Your task to perform on an android device: Search for the best selling books Image 0: 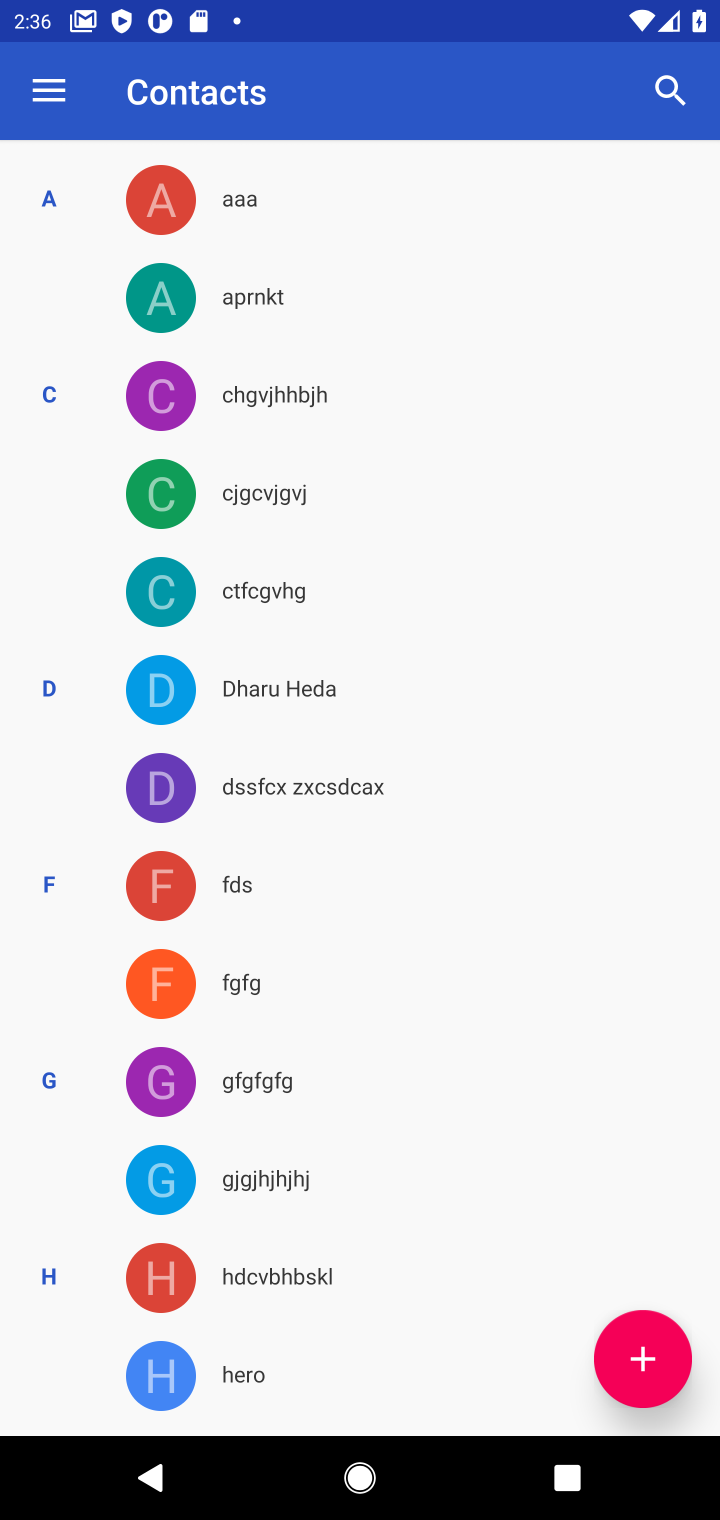
Step 0: press home button
Your task to perform on an android device: Search for the best selling books Image 1: 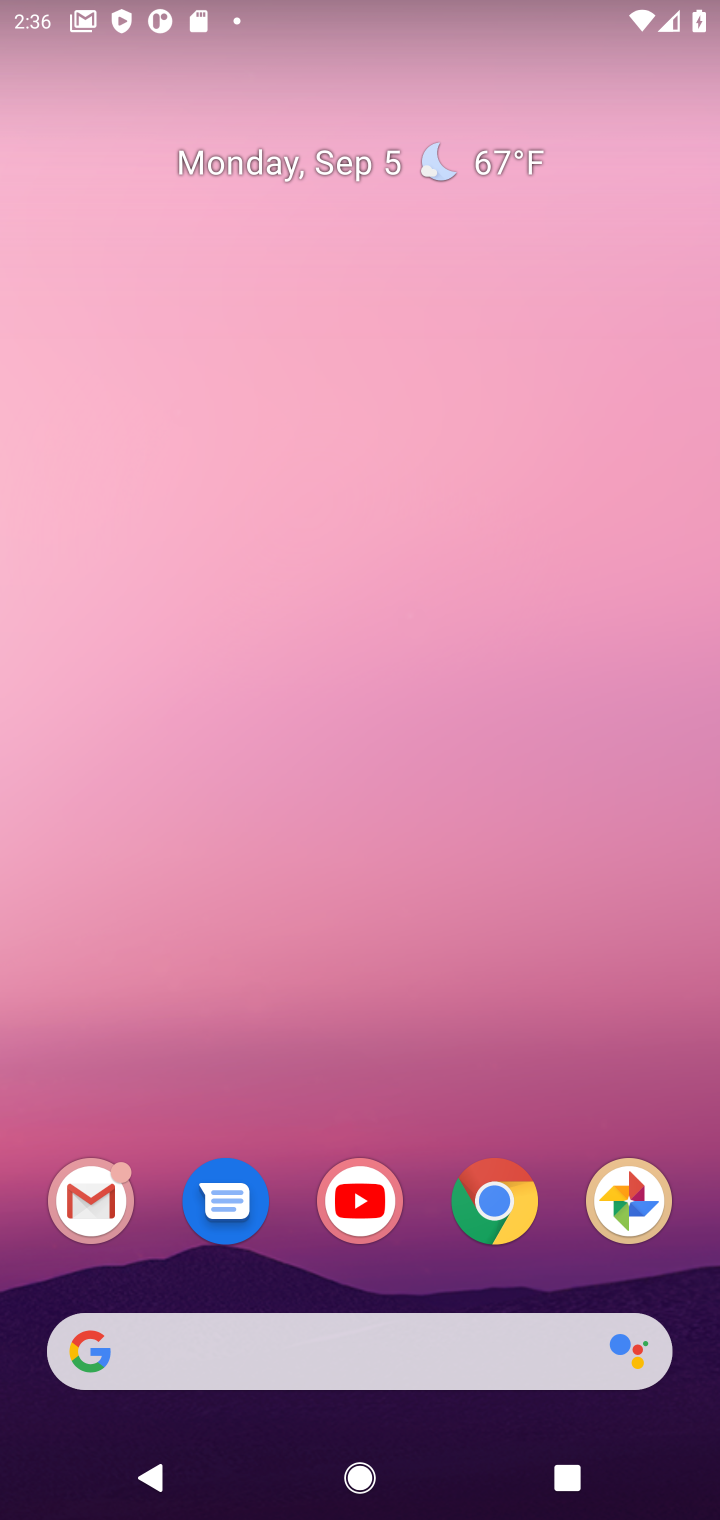
Step 1: click (489, 1220)
Your task to perform on an android device: Search for the best selling books Image 2: 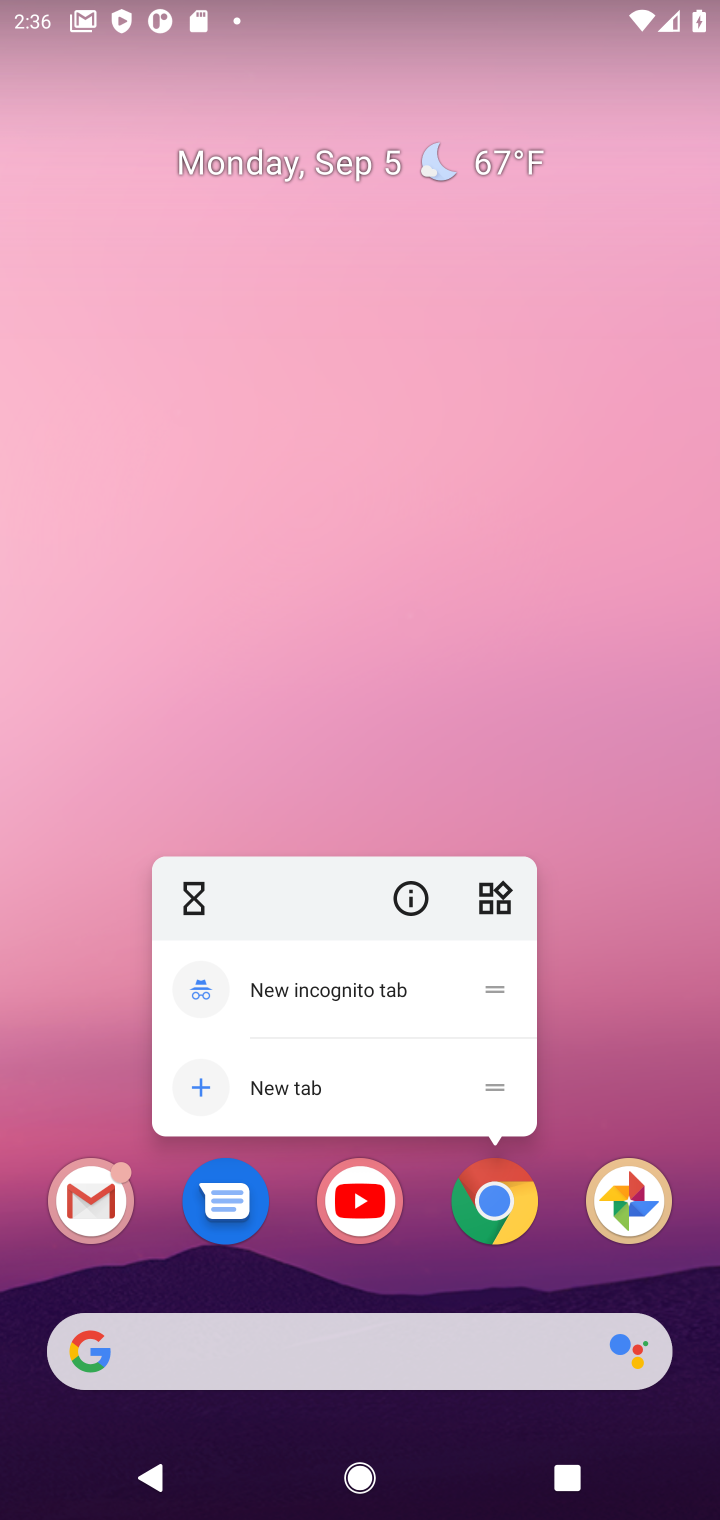
Step 2: click (504, 1201)
Your task to perform on an android device: Search for the best selling books Image 3: 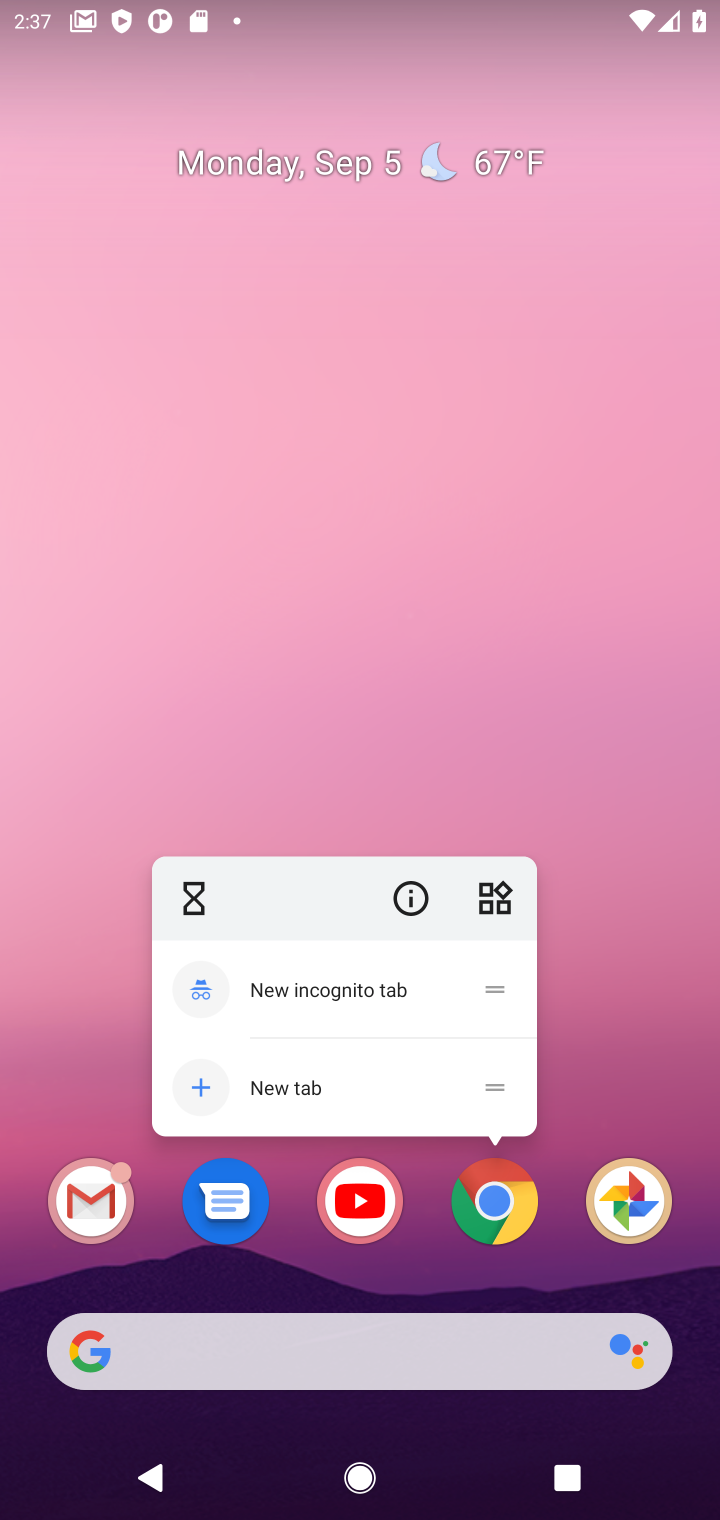
Step 3: click (504, 1203)
Your task to perform on an android device: Search for the best selling books Image 4: 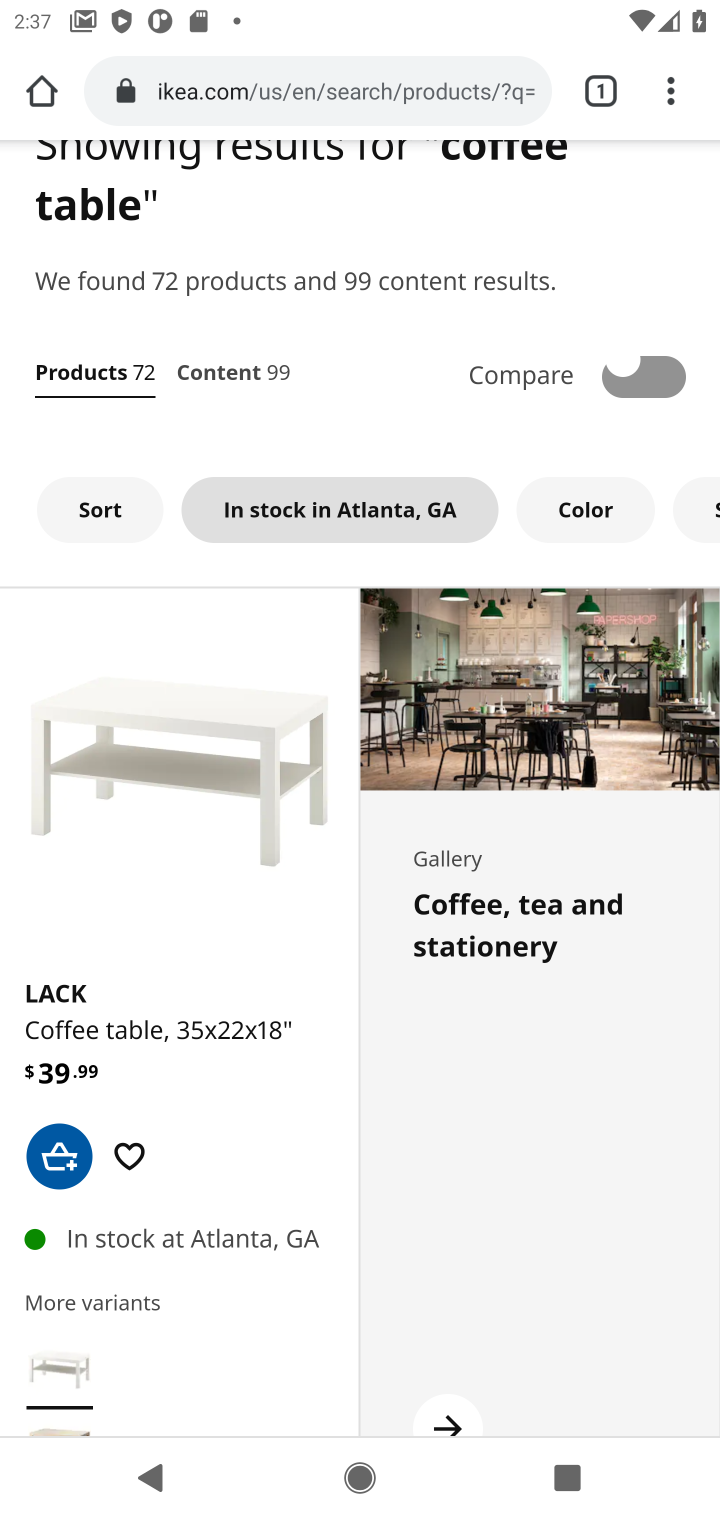
Step 4: click (371, 87)
Your task to perform on an android device: Search for the best selling books Image 5: 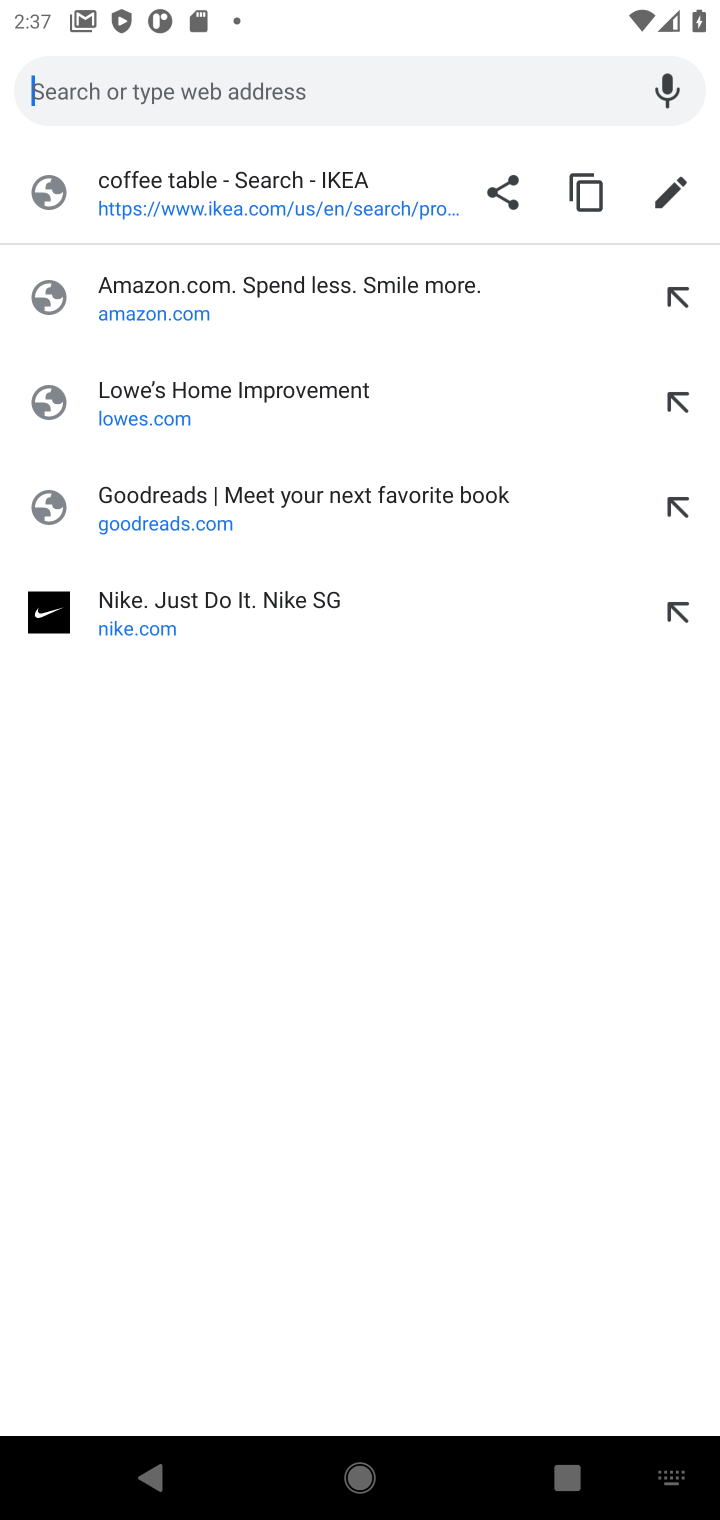
Step 5: type " best selling books"
Your task to perform on an android device: Search for the best selling books Image 6: 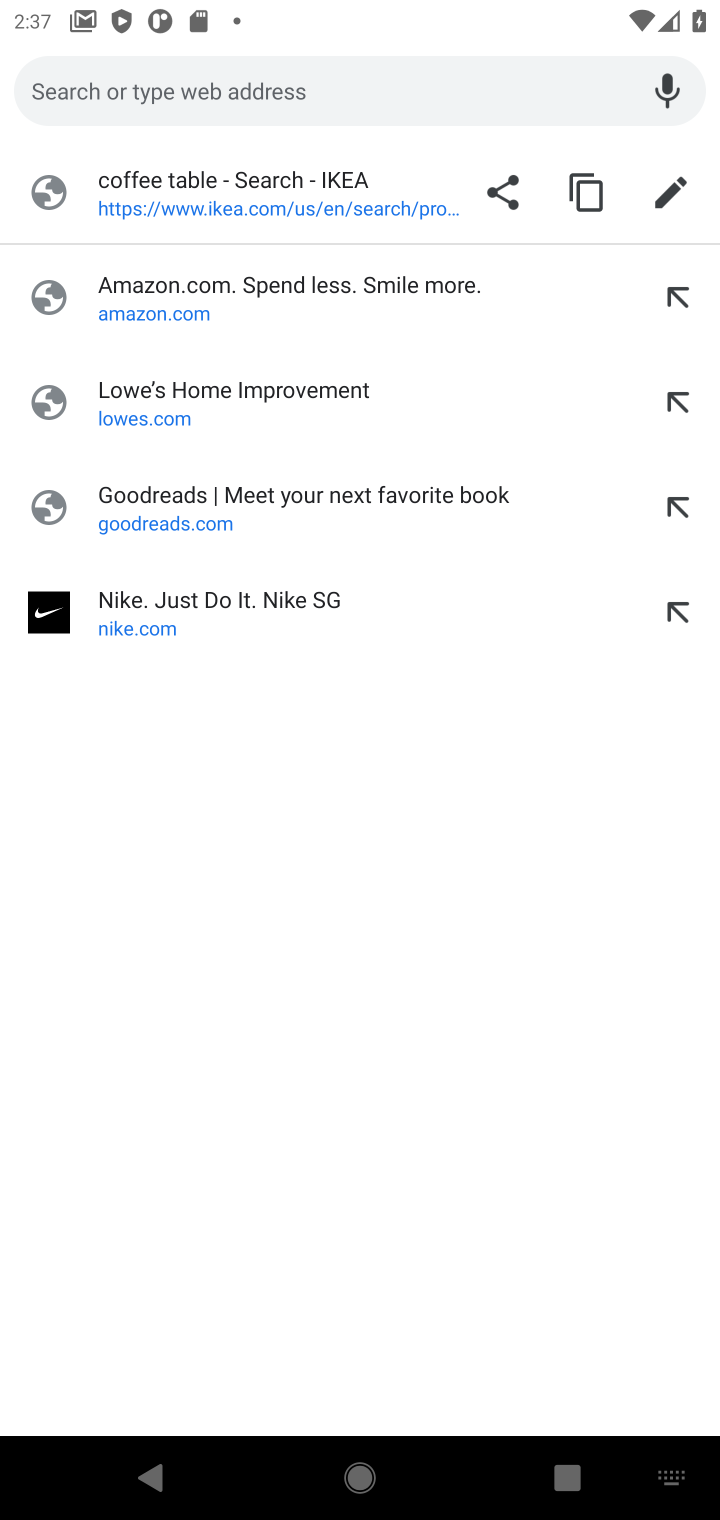
Step 6: click (201, 86)
Your task to perform on an android device: Search for the best selling books Image 7: 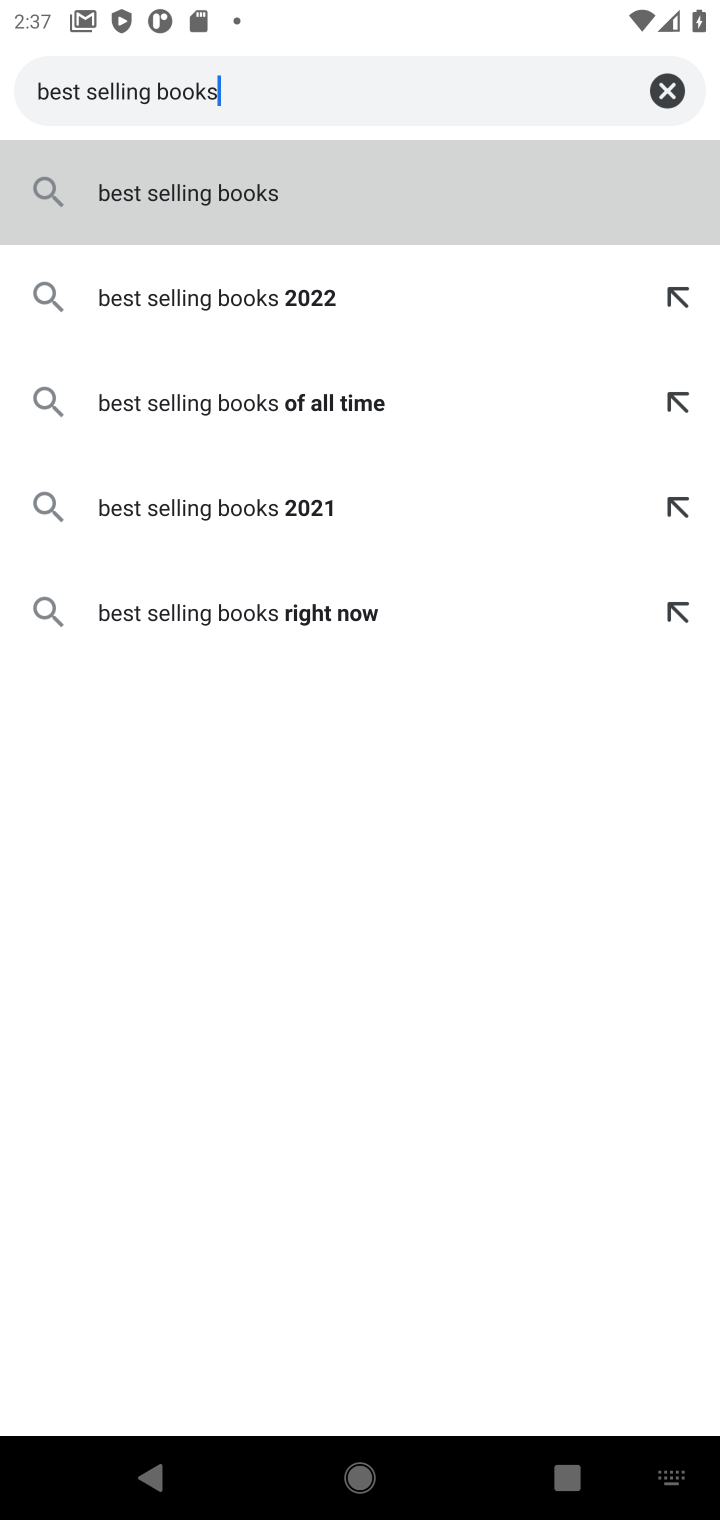
Step 7: press enter
Your task to perform on an android device: Search for the best selling books Image 8: 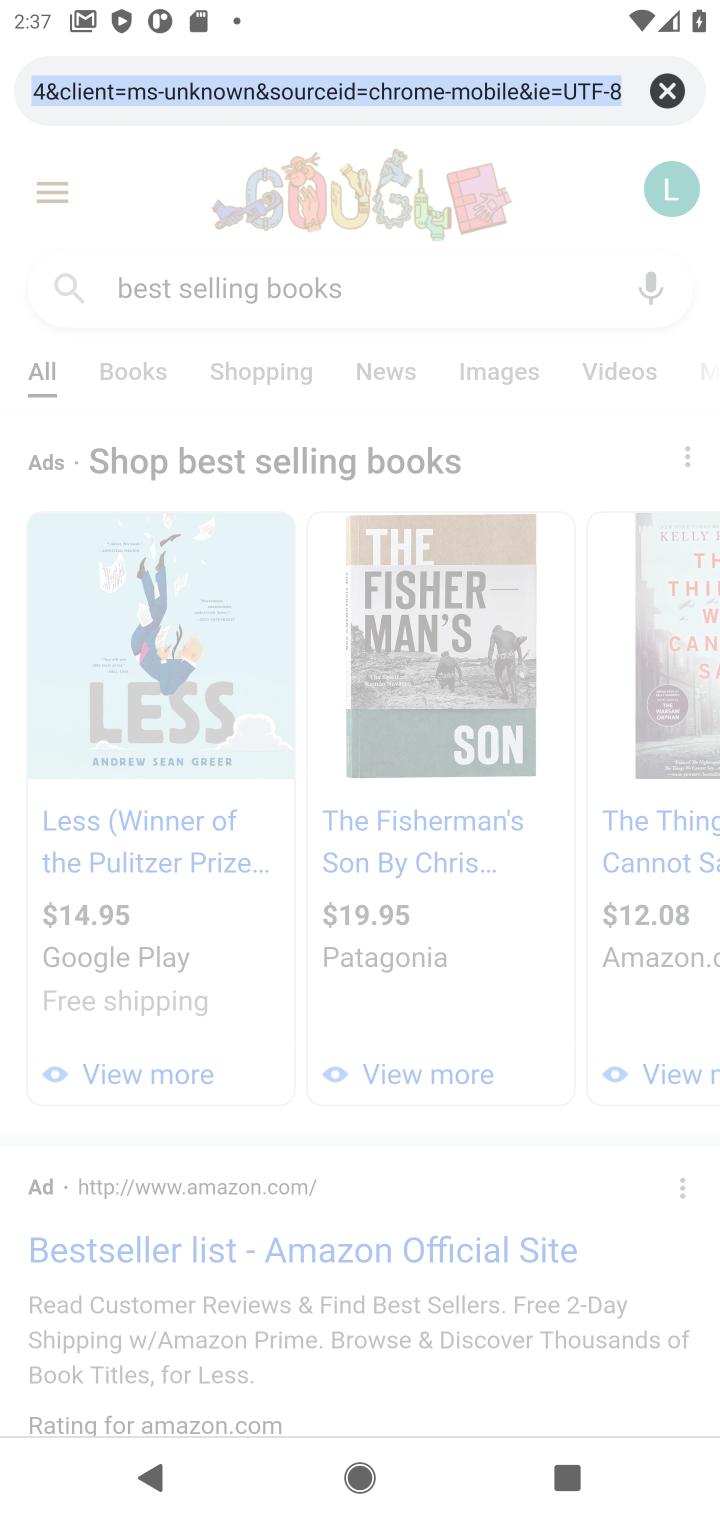
Step 8: task complete